Your task to perform on an android device: Go to settings Image 0: 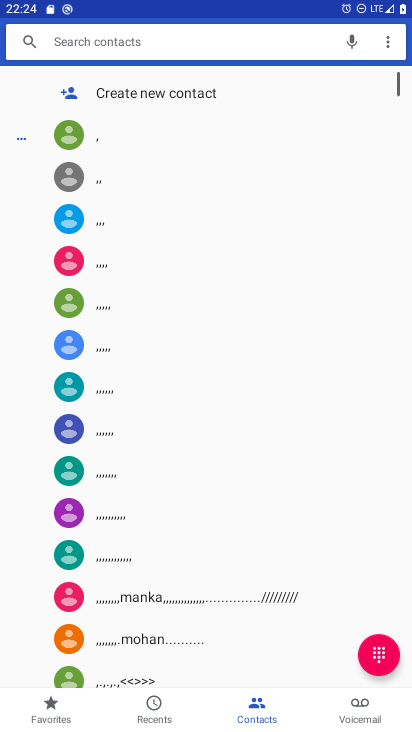
Step 0: press home button
Your task to perform on an android device: Go to settings Image 1: 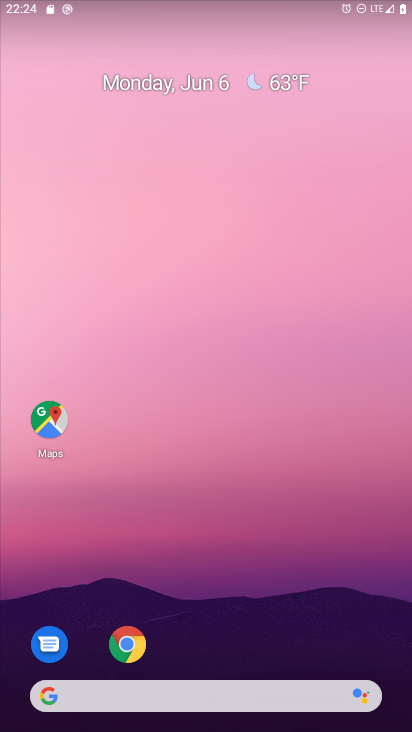
Step 1: drag from (237, 712) to (304, 79)
Your task to perform on an android device: Go to settings Image 2: 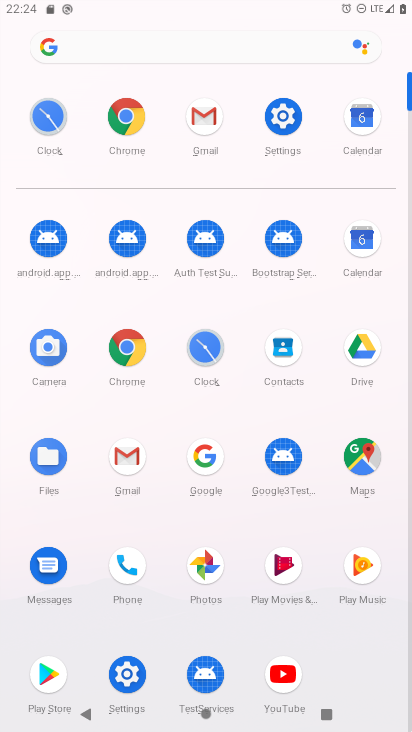
Step 2: click (284, 133)
Your task to perform on an android device: Go to settings Image 3: 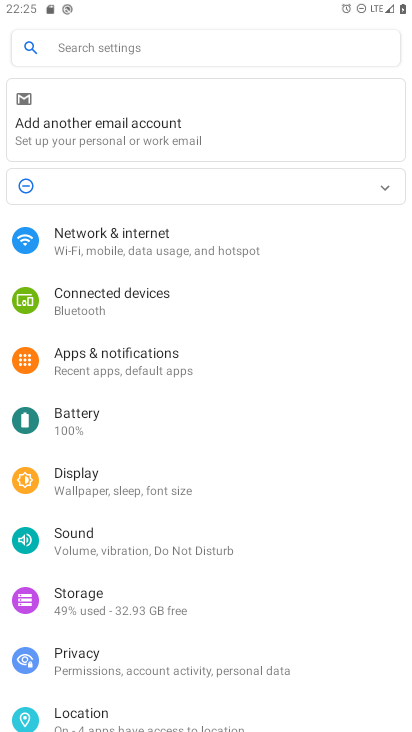
Step 3: task complete